Your task to perform on an android device: turn on priority inbox in the gmail app Image 0: 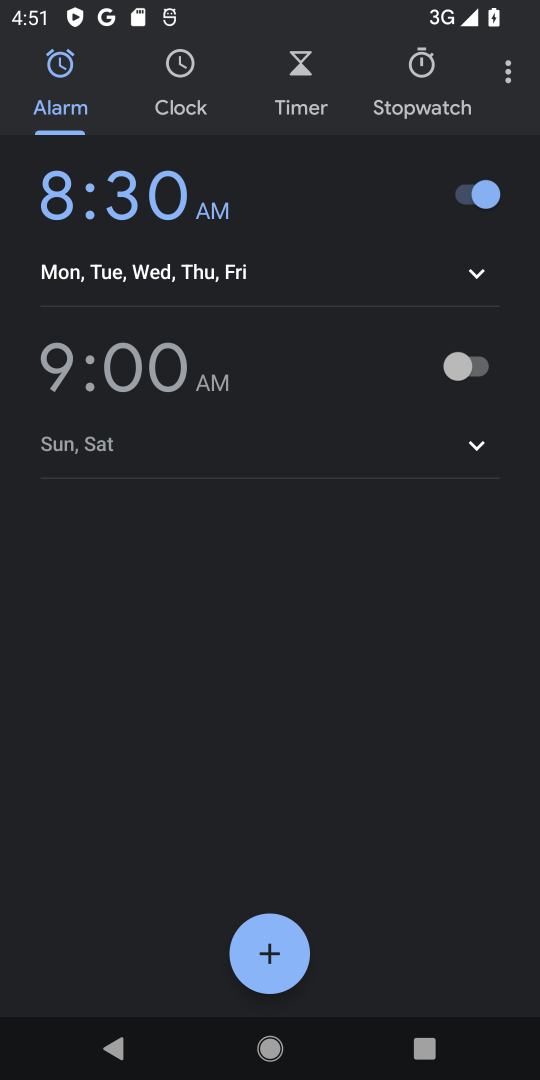
Step 0: press home button
Your task to perform on an android device: turn on priority inbox in the gmail app Image 1: 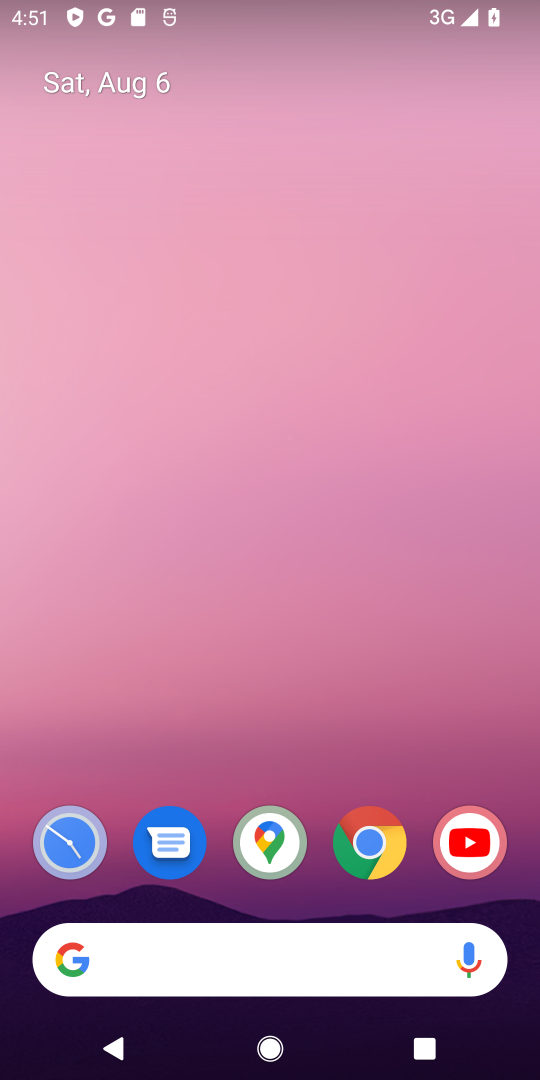
Step 1: drag from (446, 684) to (418, 210)
Your task to perform on an android device: turn on priority inbox in the gmail app Image 2: 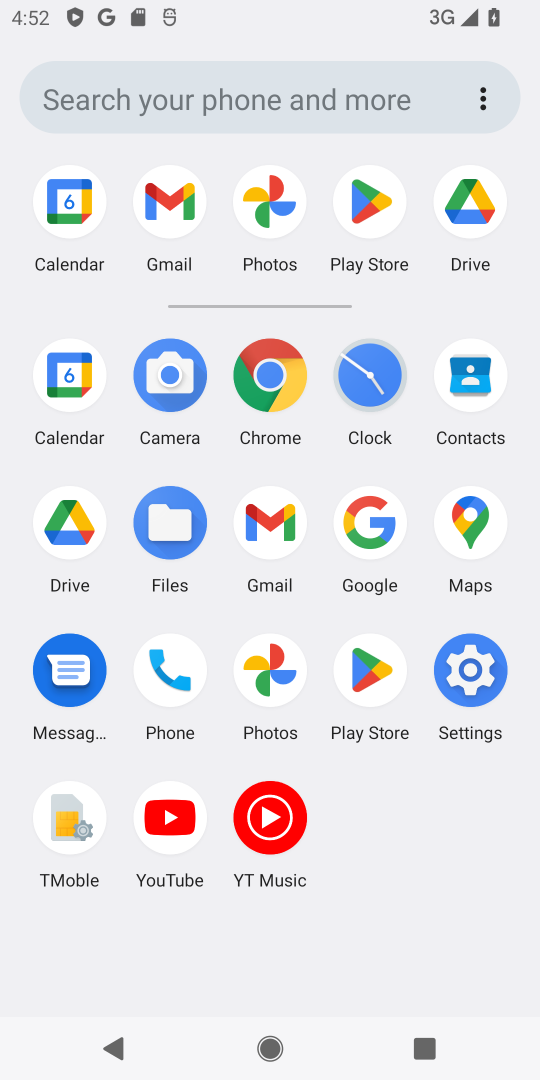
Step 2: click (256, 527)
Your task to perform on an android device: turn on priority inbox in the gmail app Image 3: 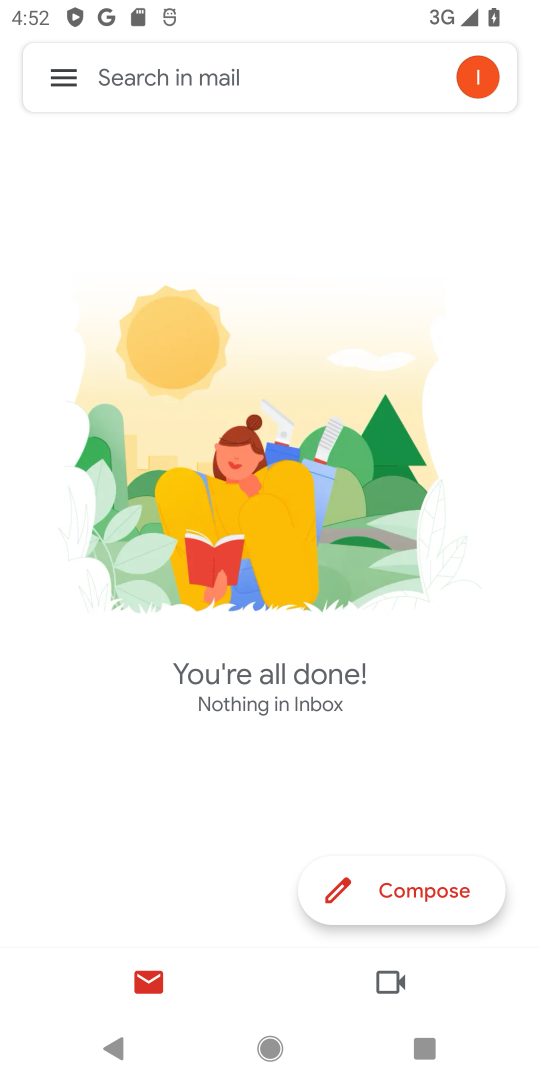
Step 3: click (68, 69)
Your task to perform on an android device: turn on priority inbox in the gmail app Image 4: 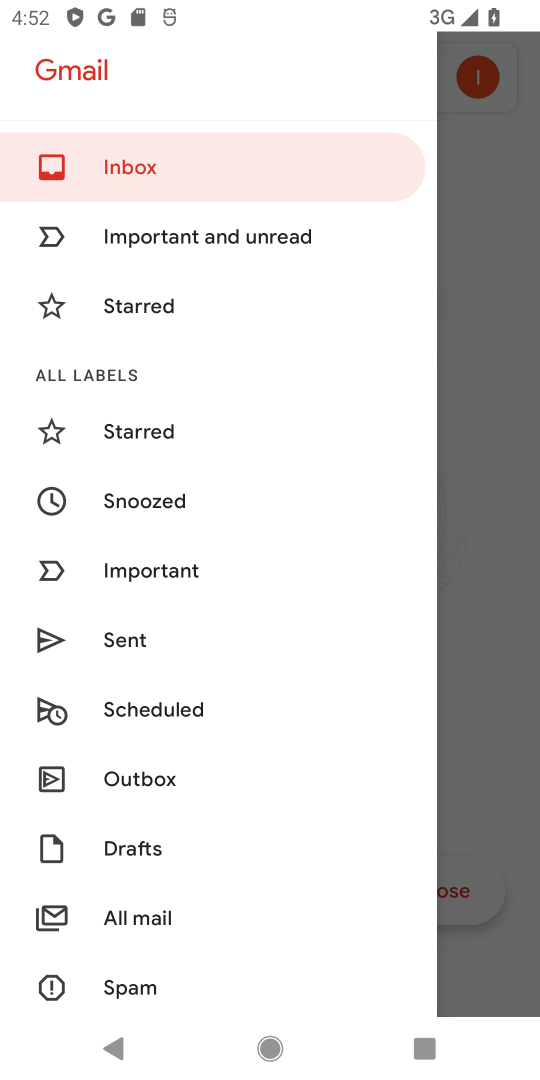
Step 4: drag from (269, 914) to (260, 359)
Your task to perform on an android device: turn on priority inbox in the gmail app Image 5: 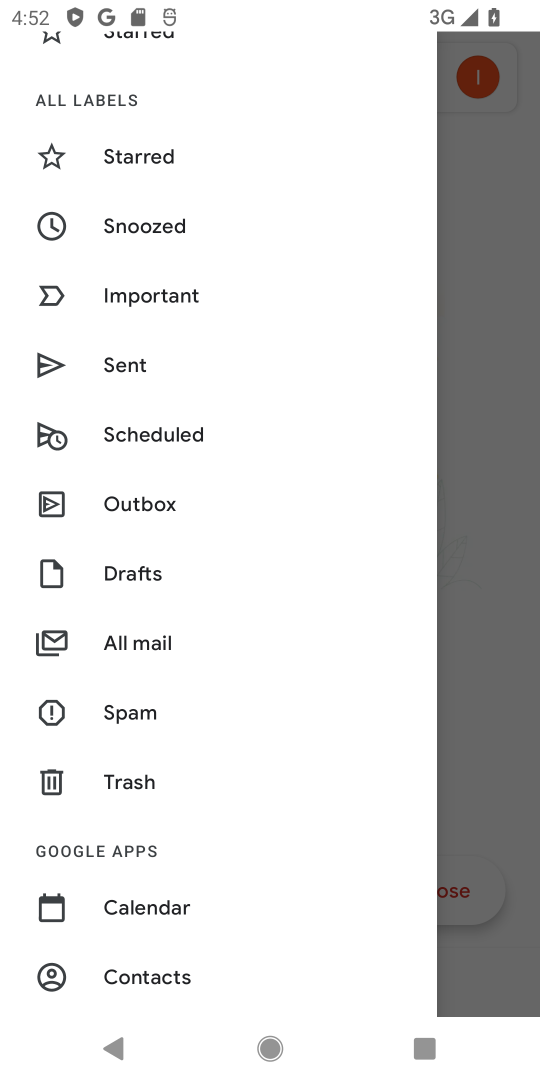
Step 5: drag from (277, 715) to (254, 445)
Your task to perform on an android device: turn on priority inbox in the gmail app Image 6: 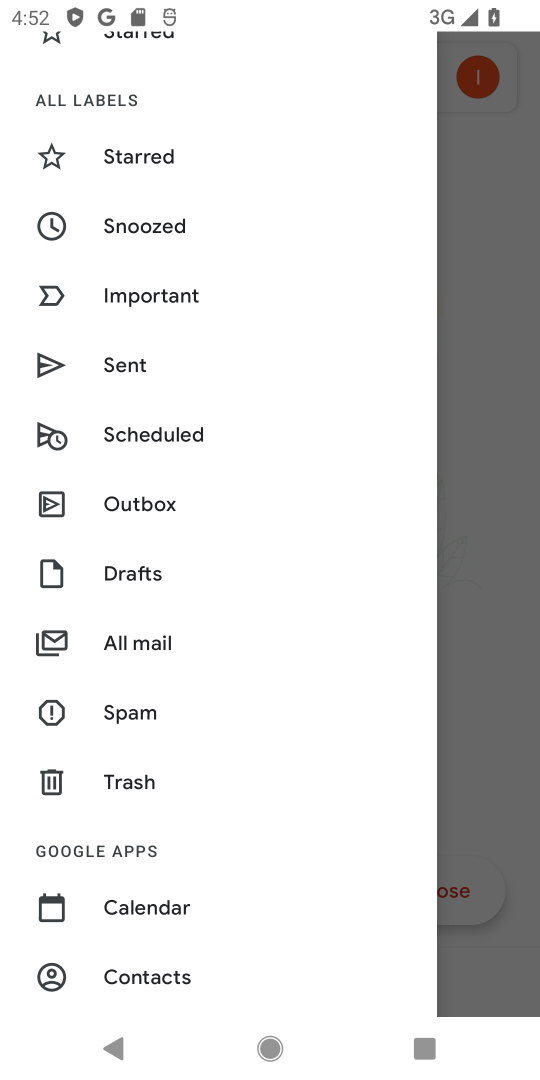
Step 6: drag from (251, 603) to (235, 445)
Your task to perform on an android device: turn on priority inbox in the gmail app Image 7: 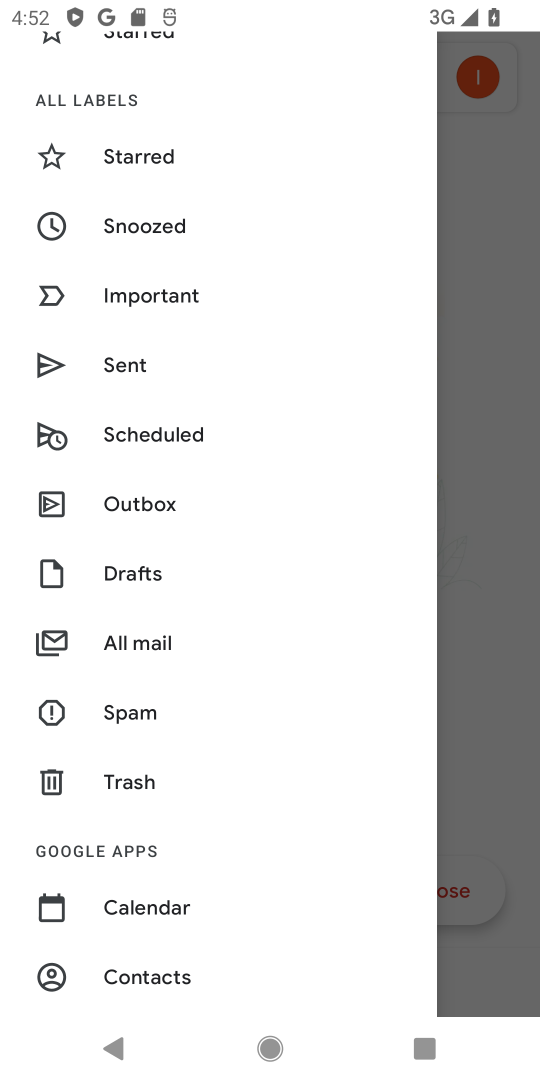
Step 7: drag from (310, 746) to (273, 353)
Your task to perform on an android device: turn on priority inbox in the gmail app Image 8: 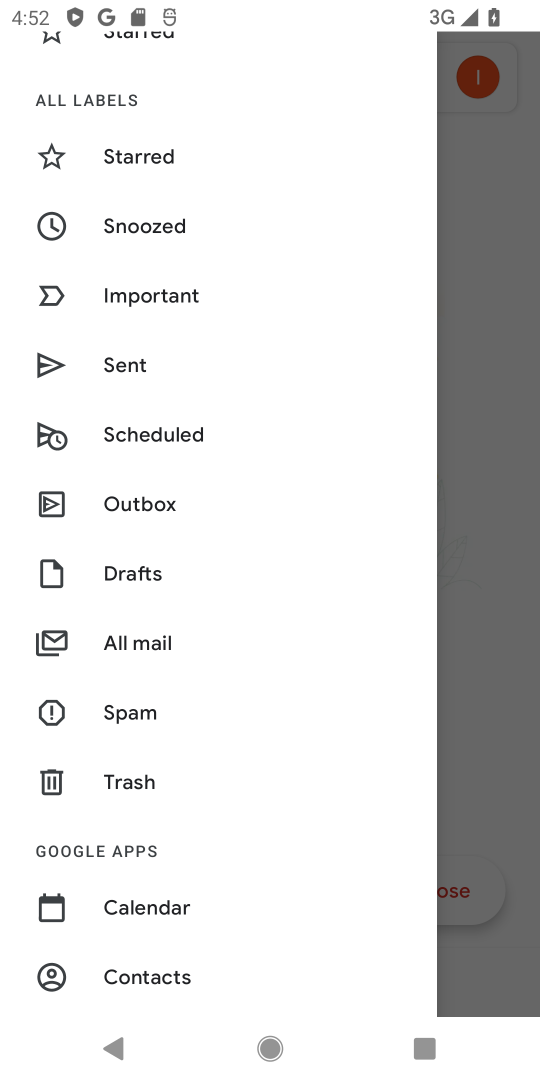
Step 8: drag from (249, 835) to (250, 252)
Your task to perform on an android device: turn on priority inbox in the gmail app Image 9: 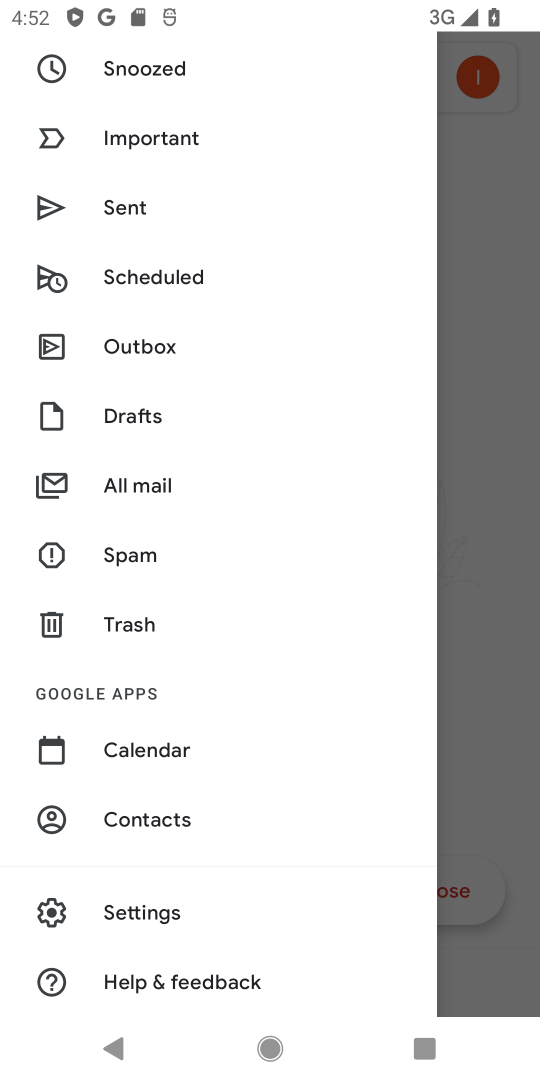
Step 9: click (132, 913)
Your task to perform on an android device: turn on priority inbox in the gmail app Image 10: 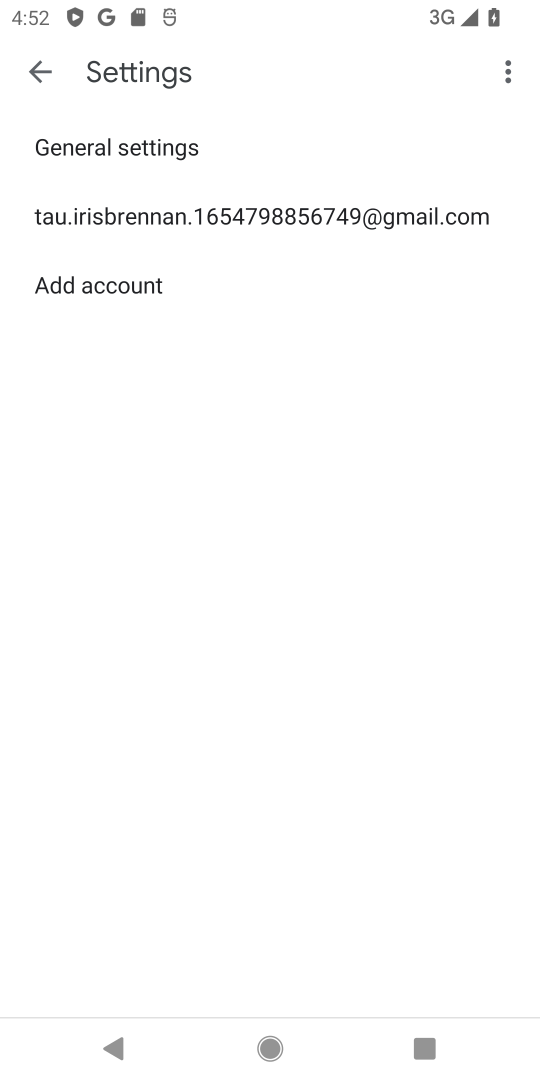
Step 10: click (212, 226)
Your task to perform on an android device: turn on priority inbox in the gmail app Image 11: 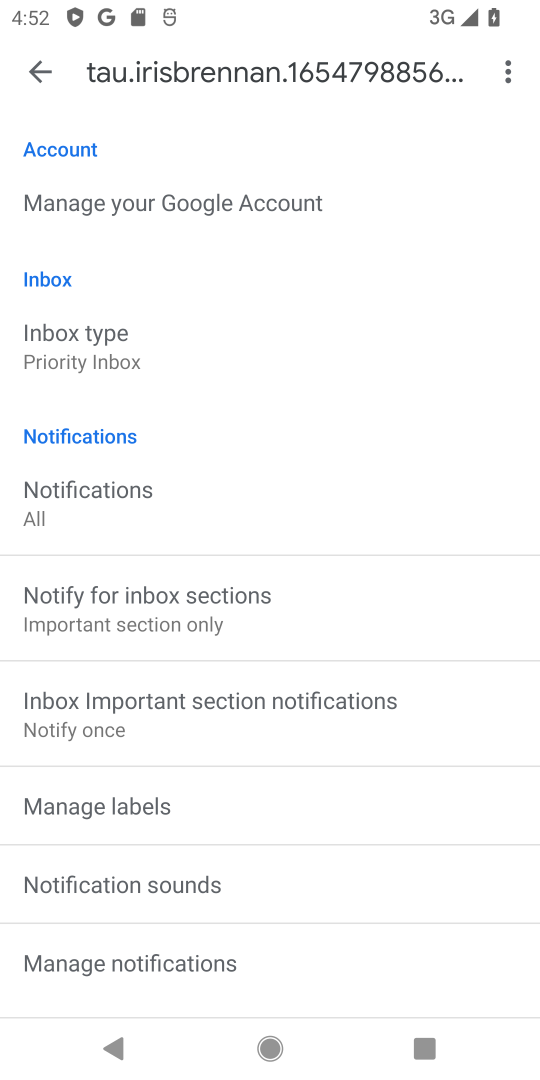
Step 11: click (58, 348)
Your task to perform on an android device: turn on priority inbox in the gmail app Image 12: 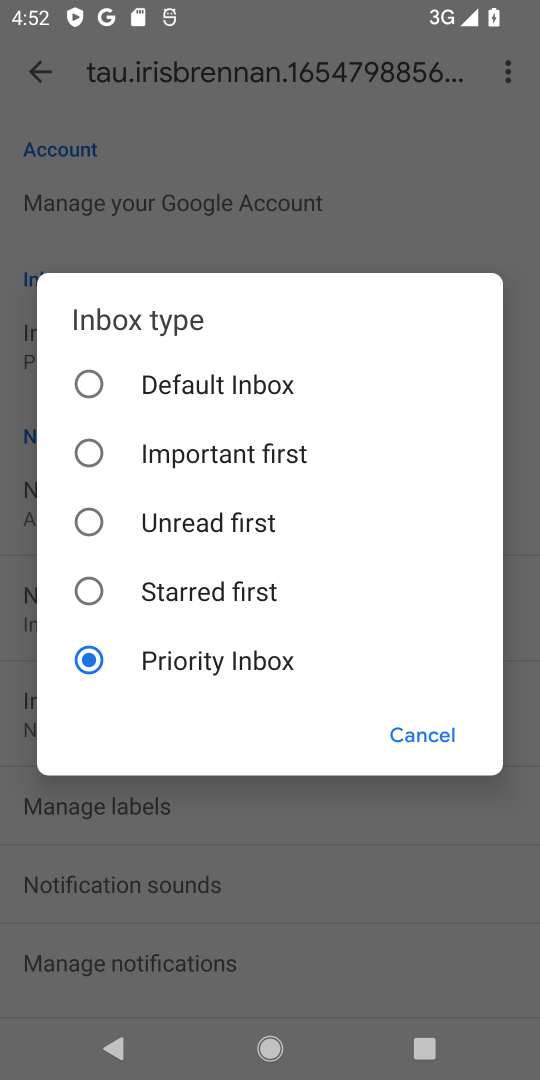
Step 12: task complete